Your task to perform on an android device: Go to internet settings Image 0: 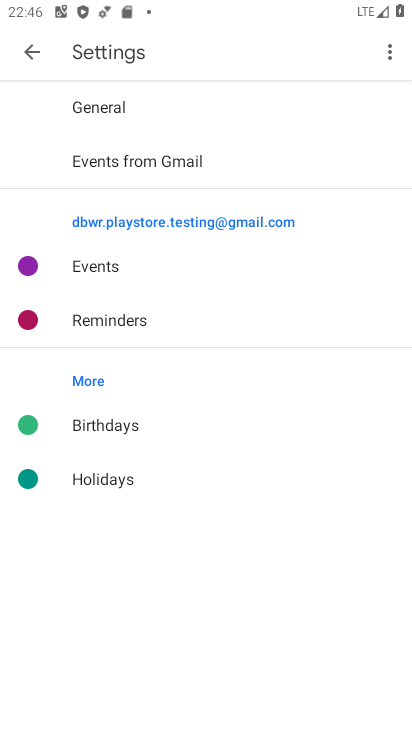
Step 0: press home button
Your task to perform on an android device: Go to internet settings Image 1: 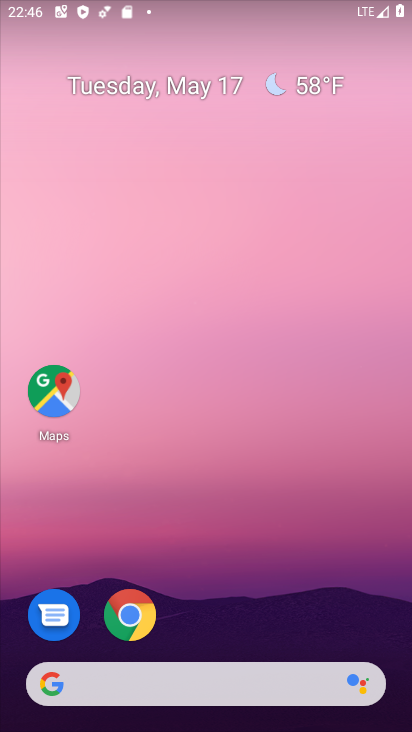
Step 1: drag from (265, 625) to (239, 173)
Your task to perform on an android device: Go to internet settings Image 2: 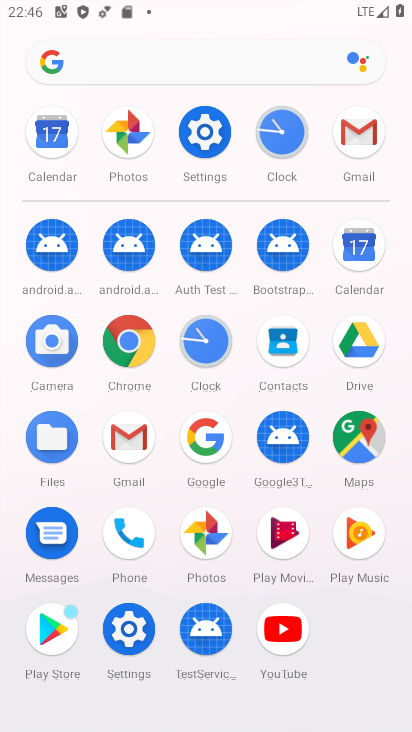
Step 2: click (211, 125)
Your task to perform on an android device: Go to internet settings Image 3: 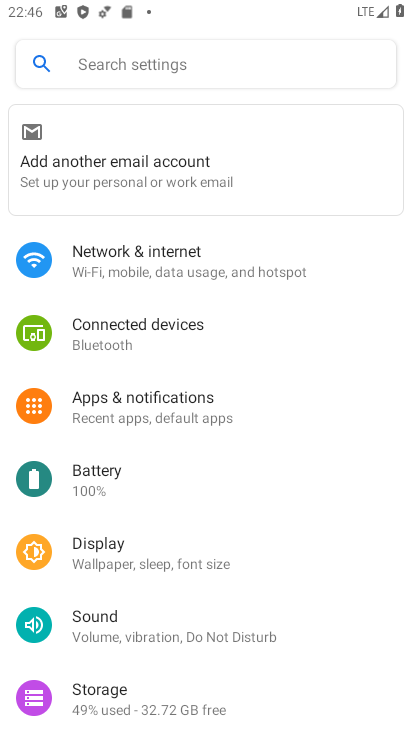
Step 3: click (209, 258)
Your task to perform on an android device: Go to internet settings Image 4: 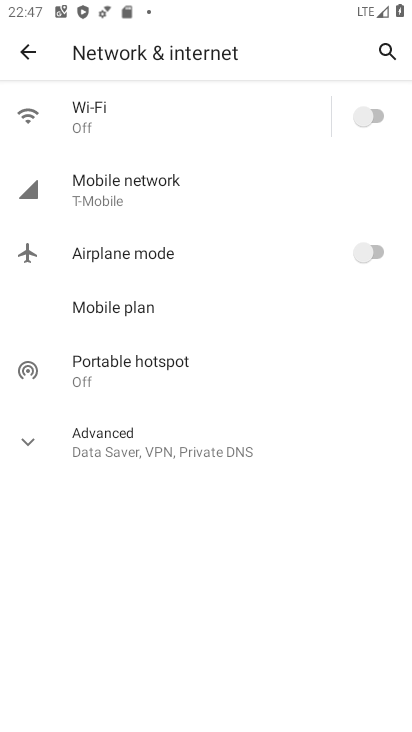
Step 4: task complete